Your task to perform on an android device: Open sound settings Image 0: 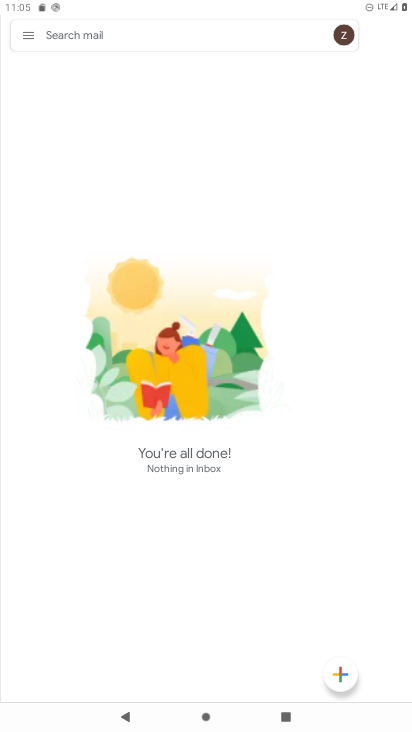
Step 0: press home button
Your task to perform on an android device: Open sound settings Image 1: 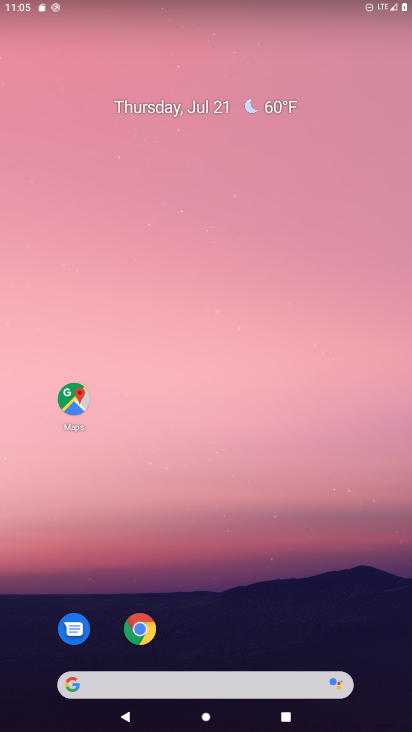
Step 1: drag from (295, 596) to (312, 77)
Your task to perform on an android device: Open sound settings Image 2: 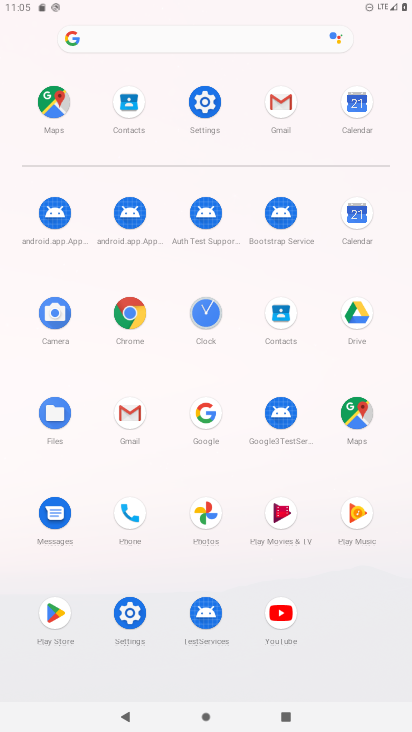
Step 2: click (205, 99)
Your task to perform on an android device: Open sound settings Image 3: 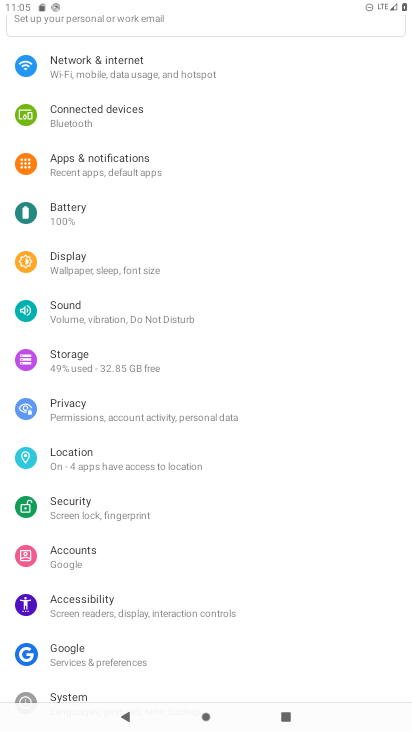
Step 3: click (68, 320)
Your task to perform on an android device: Open sound settings Image 4: 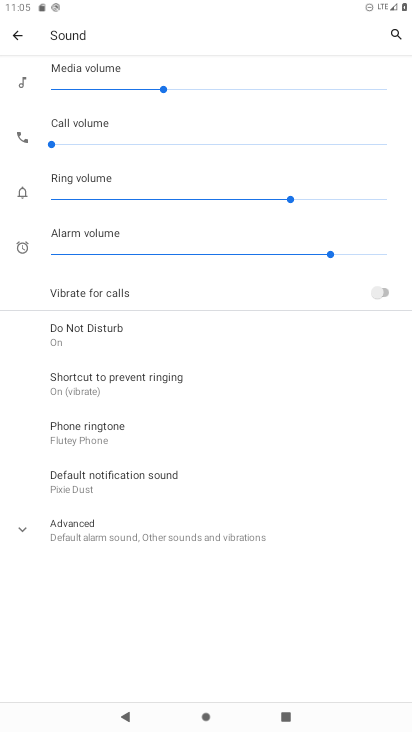
Step 4: task complete